Your task to perform on an android device: Go to Yahoo.com Image 0: 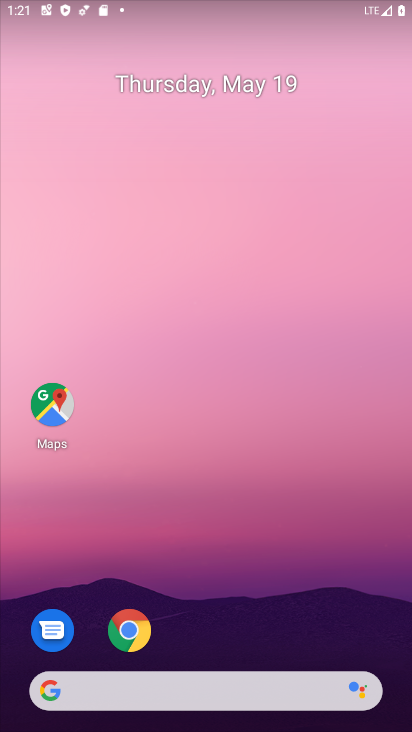
Step 0: click (120, 630)
Your task to perform on an android device: Go to Yahoo.com Image 1: 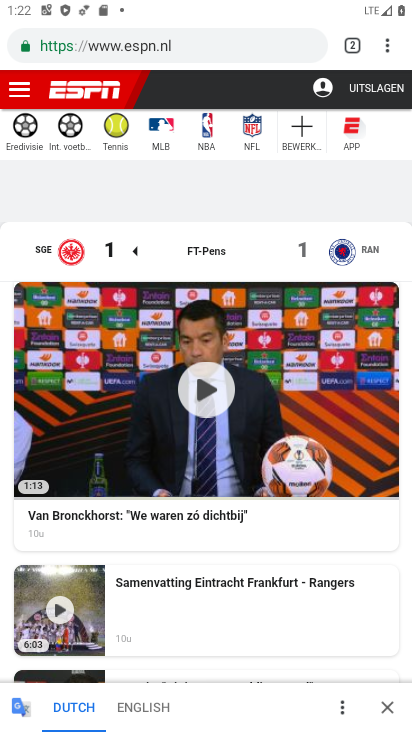
Step 1: click (353, 43)
Your task to perform on an android device: Go to Yahoo.com Image 2: 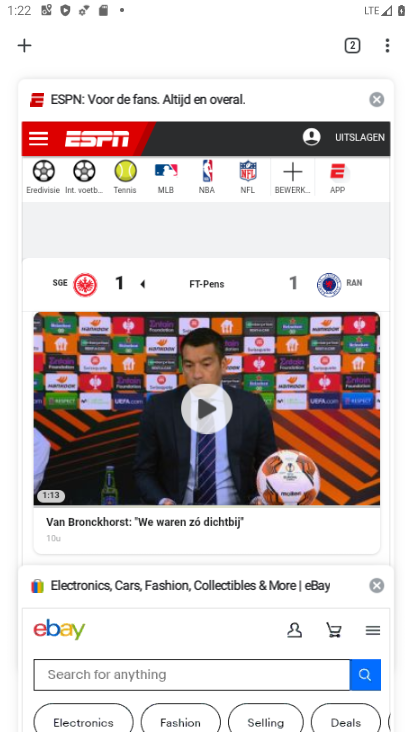
Step 2: click (27, 34)
Your task to perform on an android device: Go to Yahoo.com Image 3: 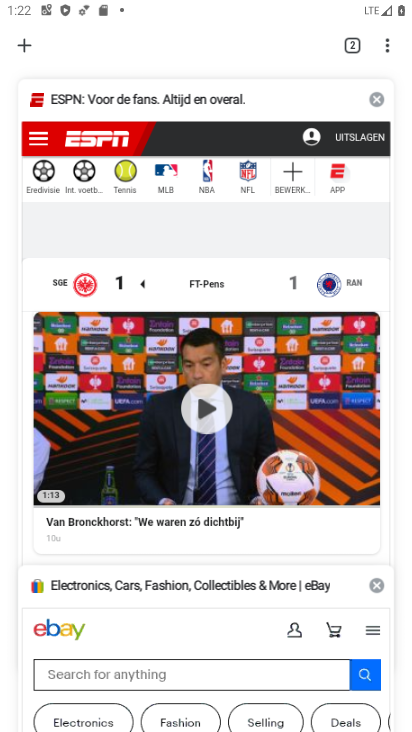
Step 3: click (28, 38)
Your task to perform on an android device: Go to Yahoo.com Image 4: 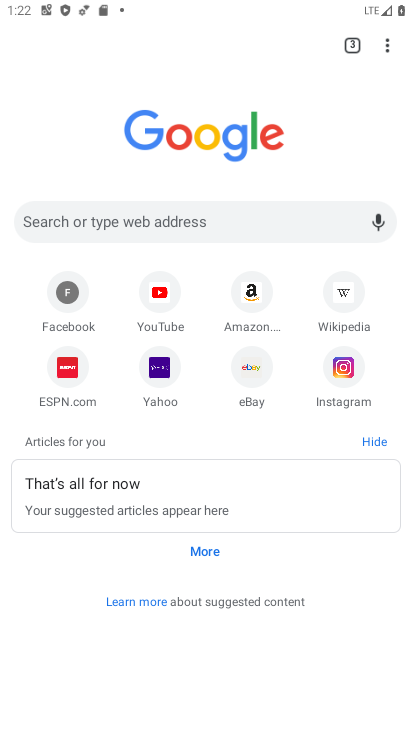
Step 4: click (157, 383)
Your task to perform on an android device: Go to Yahoo.com Image 5: 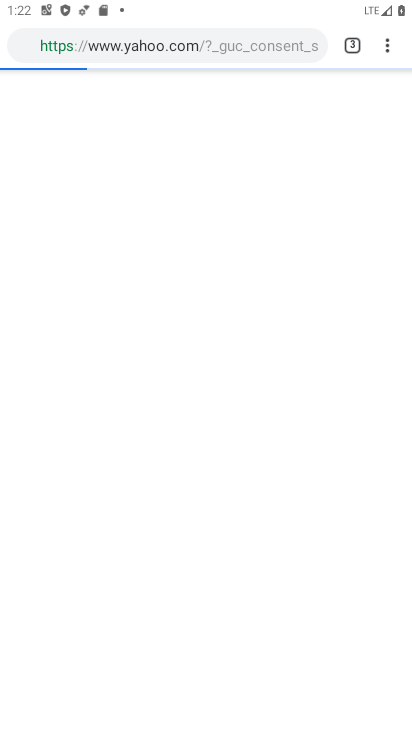
Step 5: task complete